Your task to perform on an android device: What is the recent news? Image 0: 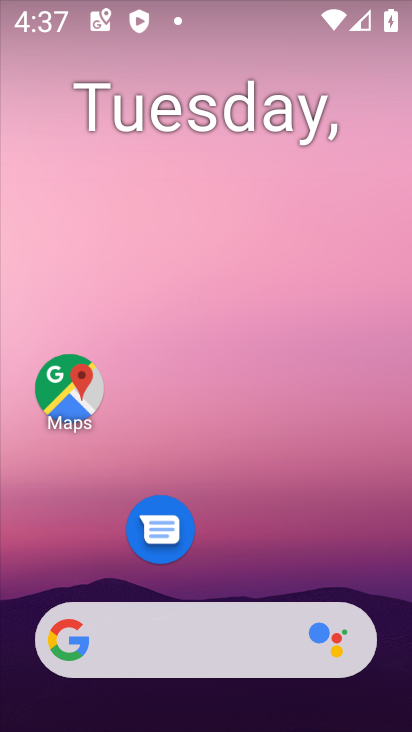
Step 0: drag from (165, 514) to (225, 147)
Your task to perform on an android device: What is the recent news? Image 1: 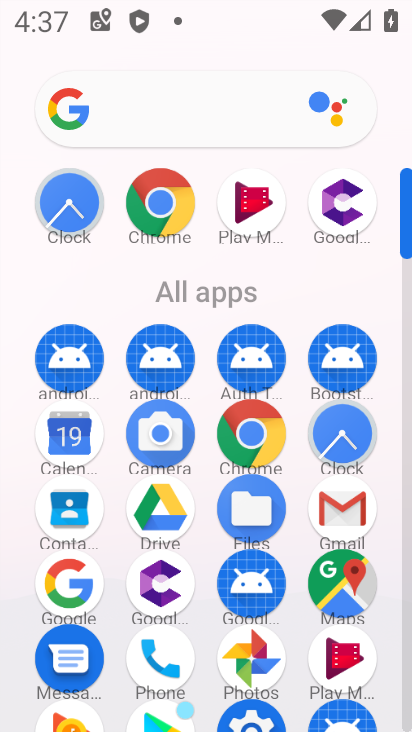
Step 1: click (244, 440)
Your task to perform on an android device: What is the recent news? Image 2: 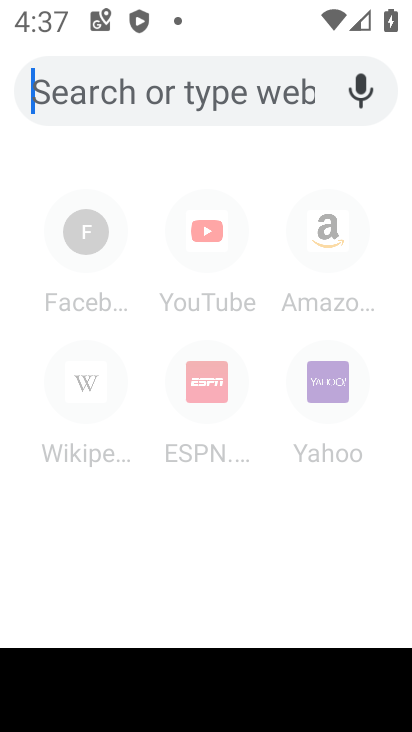
Step 2: type "recent news"
Your task to perform on an android device: What is the recent news? Image 3: 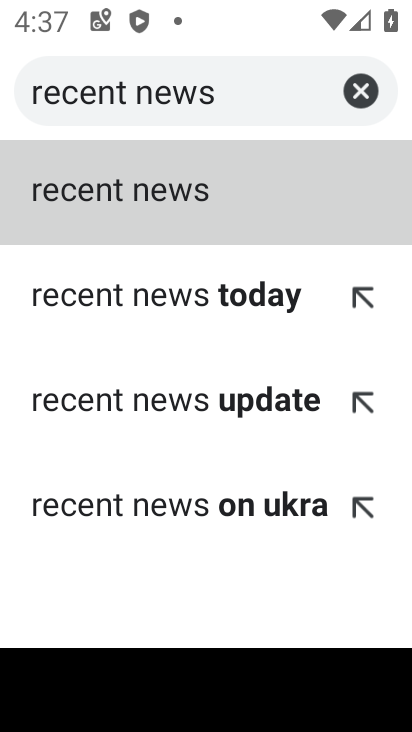
Step 3: click (181, 207)
Your task to perform on an android device: What is the recent news? Image 4: 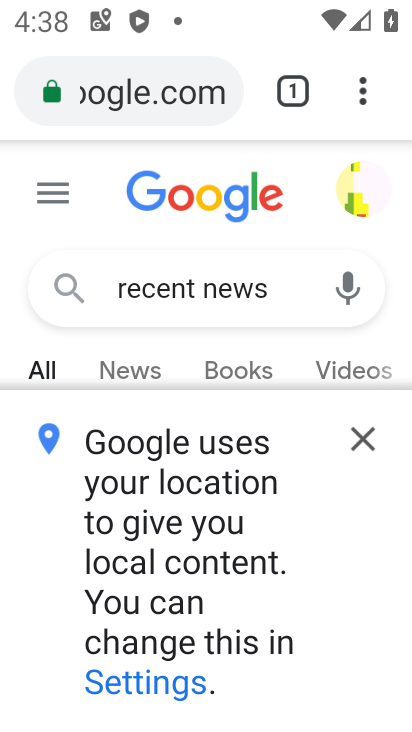
Step 4: task complete